Your task to perform on an android device: Open Google Maps Image 0: 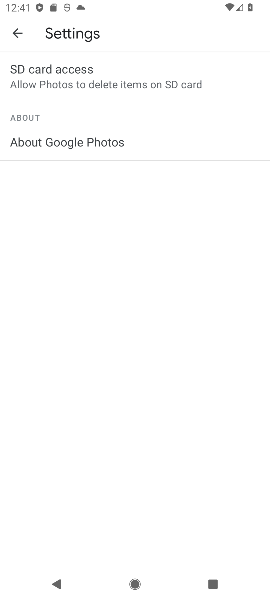
Step 0: press home button
Your task to perform on an android device: Open Google Maps Image 1: 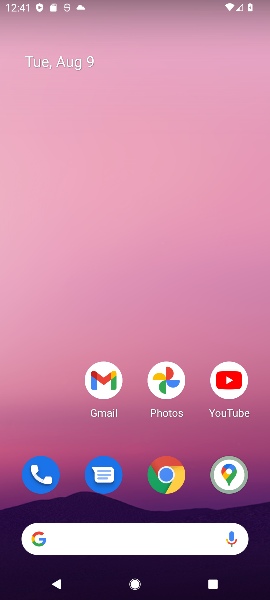
Step 1: click (230, 478)
Your task to perform on an android device: Open Google Maps Image 2: 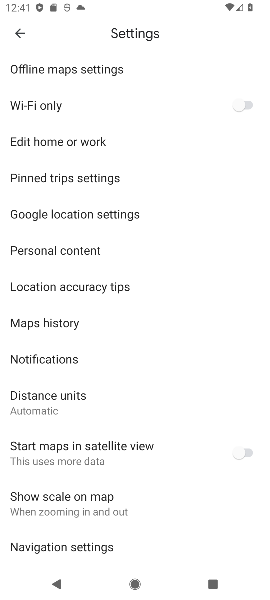
Step 2: click (28, 34)
Your task to perform on an android device: Open Google Maps Image 3: 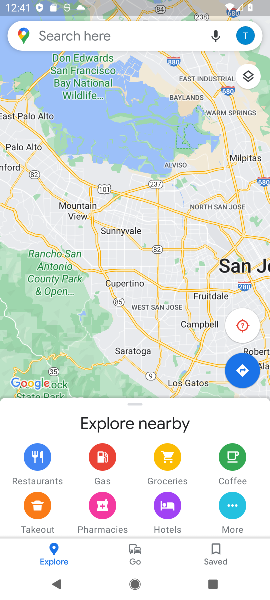
Step 3: task complete